Your task to perform on an android device: Open Reddit.com Image 0: 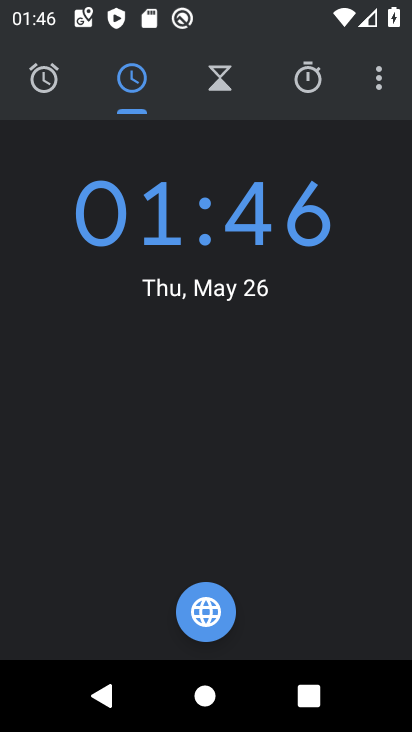
Step 0: press home button
Your task to perform on an android device: Open Reddit.com Image 1: 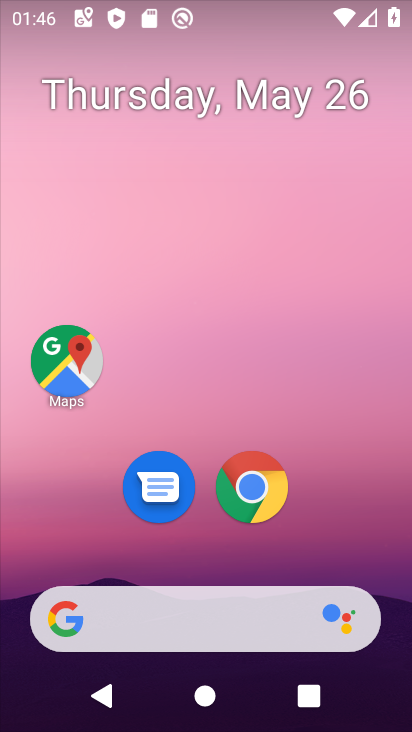
Step 1: click (253, 504)
Your task to perform on an android device: Open Reddit.com Image 2: 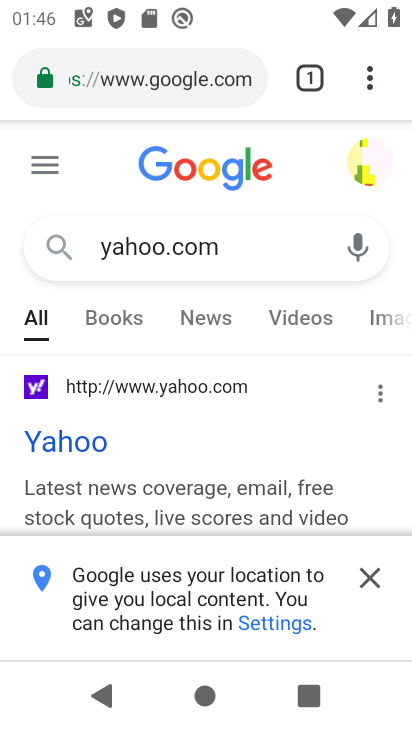
Step 2: click (204, 83)
Your task to perform on an android device: Open Reddit.com Image 3: 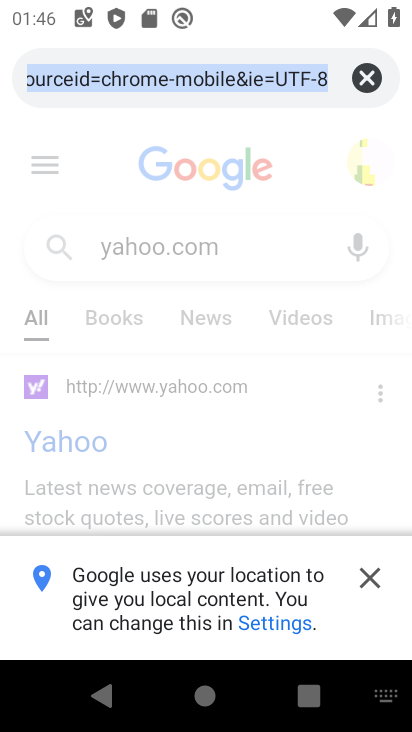
Step 3: type "reddit.com"
Your task to perform on an android device: Open Reddit.com Image 4: 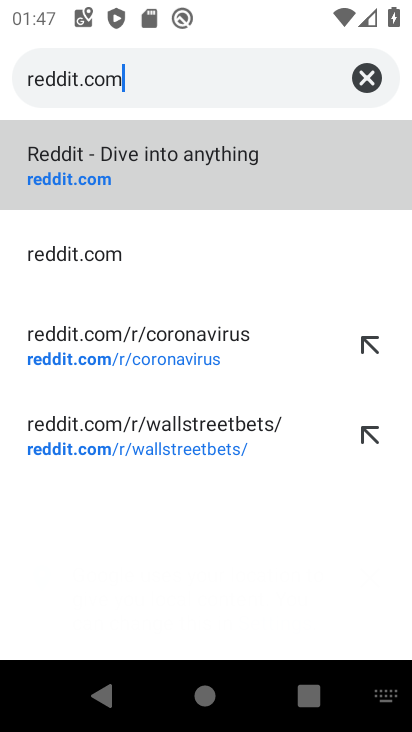
Step 4: click (238, 144)
Your task to perform on an android device: Open Reddit.com Image 5: 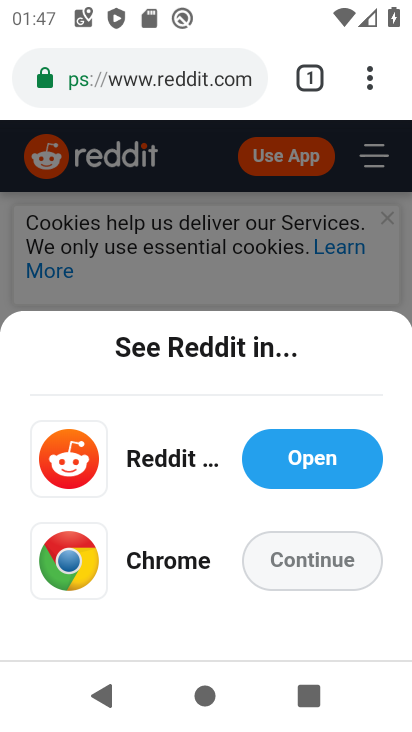
Step 5: task complete